Your task to perform on an android device: all mails in gmail Image 0: 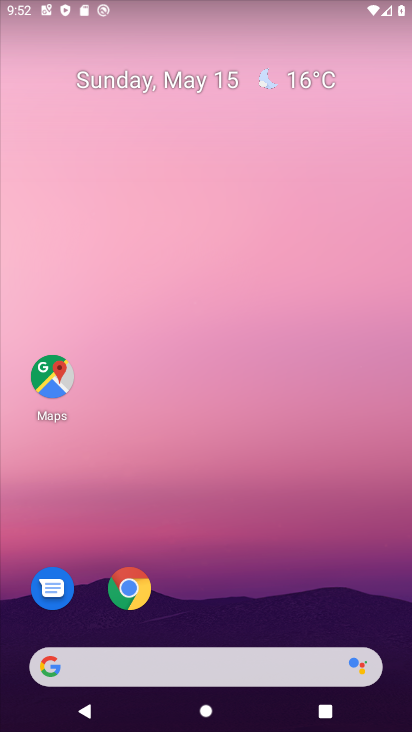
Step 0: drag from (190, 511) to (285, 35)
Your task to perform on an android device: all mails in gmail Image 1: 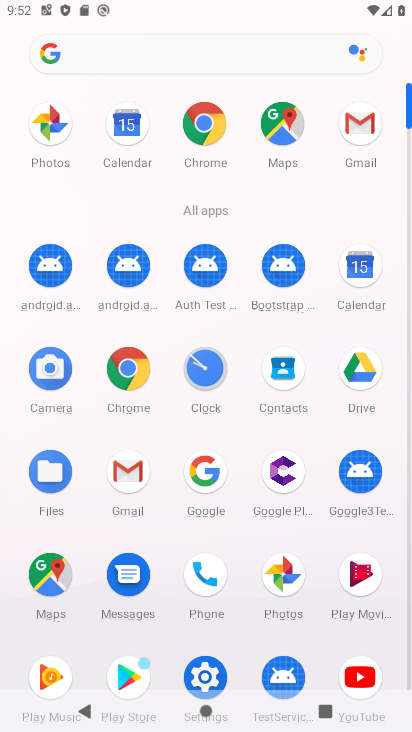
Step 1: click (354, 138)
Your task to perform on an android device: all mails in gmail Image 2: 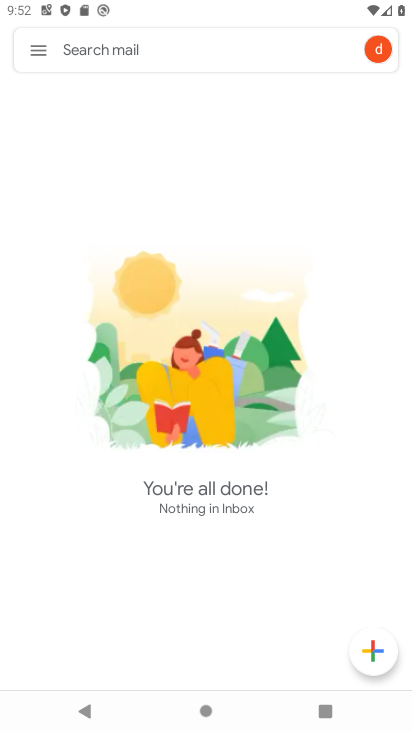
Step 2: click (44, 53)
Your task to perform on an android device: all mails in gmail Image 3: 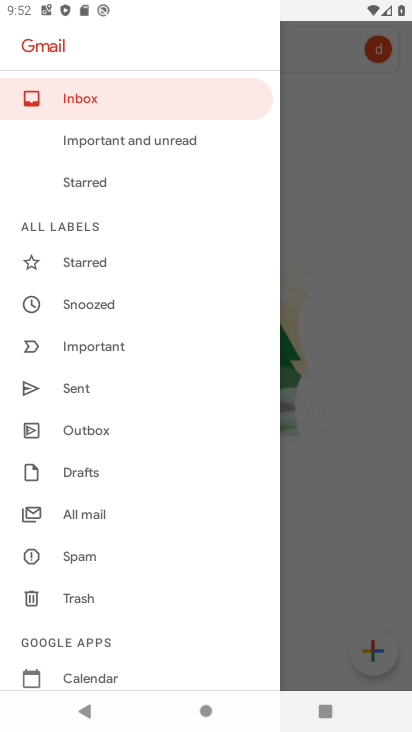
Step 3: click (108, 114)
Your task to perform on an android device: all mails in gmail Image 4: 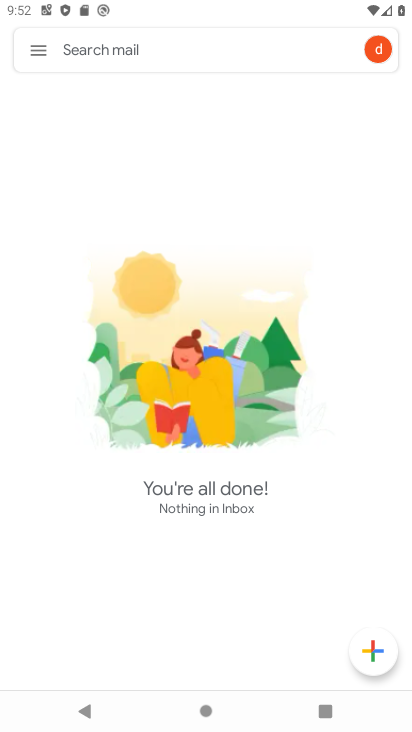
Step 4: task complete